Your task to perform on an android device: turn on the 12-hour format for clock Image 0: 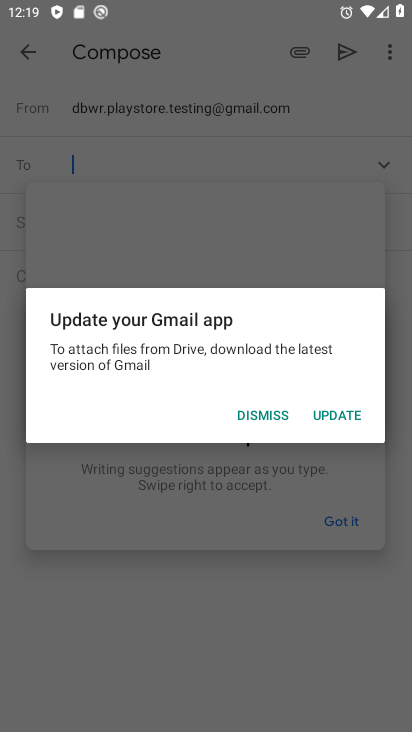
Step 0: press home button
Your task to perform on an android device: turn on the 12-hour format for clock Image 1: 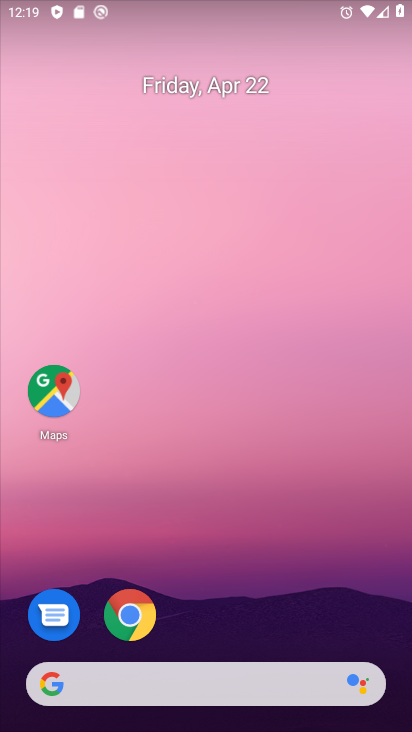
Step 1: drag from (249, 371) to (223, 127)
Your task to perform on an android device: turn on the 12-hour format for clock Image 2: 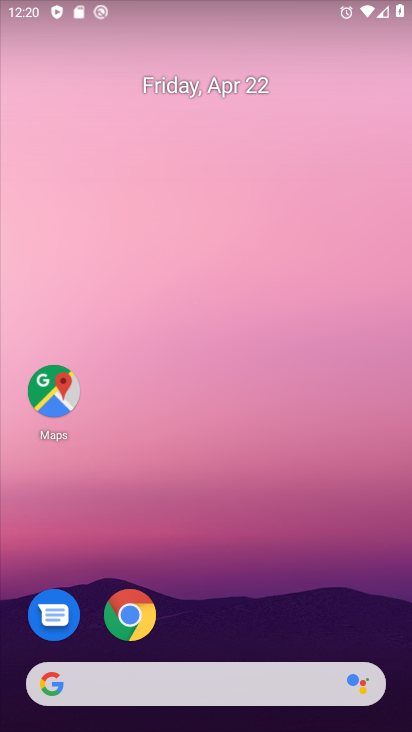
Step 2: drag from (247, 528) to (255, 107)
Your task to perform on an android device: turn on the 12-hour format for clock Image 3: 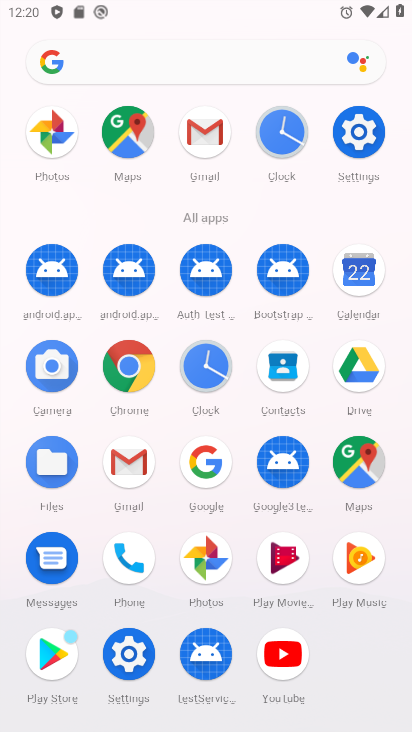
Step 3: click (268, 133)
Your task to perform on an android device: turn on the 12-hour format for clock Image 4: 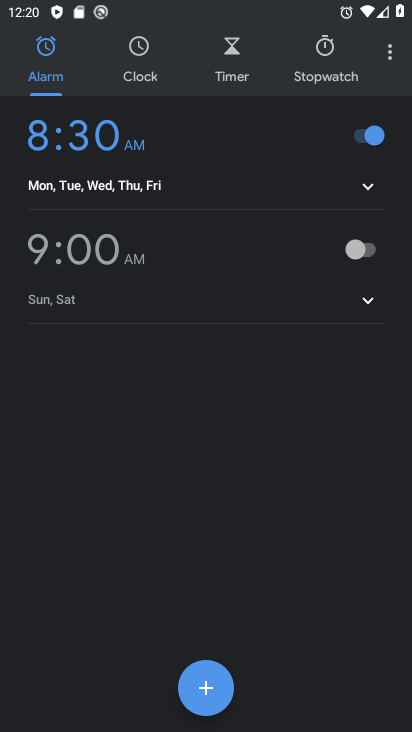
Step 4: click (387, 62)
Your task to perform on an android device: turn on the 12-hour format for clock Image 5: 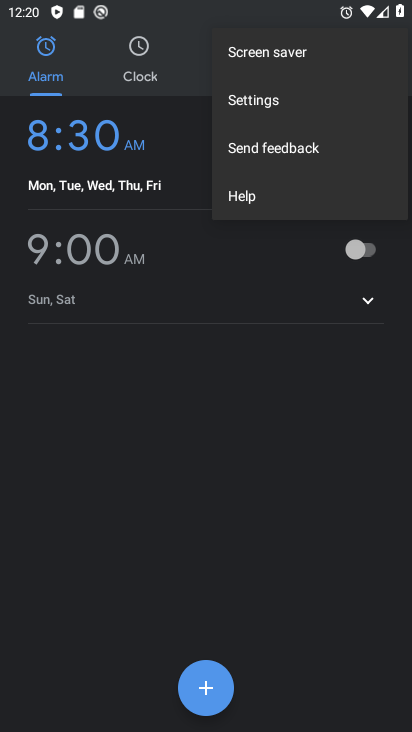
Step 5: click (293, 106)
Your task to perform on an android device: turn on the 12-hour format for clock Image 6: 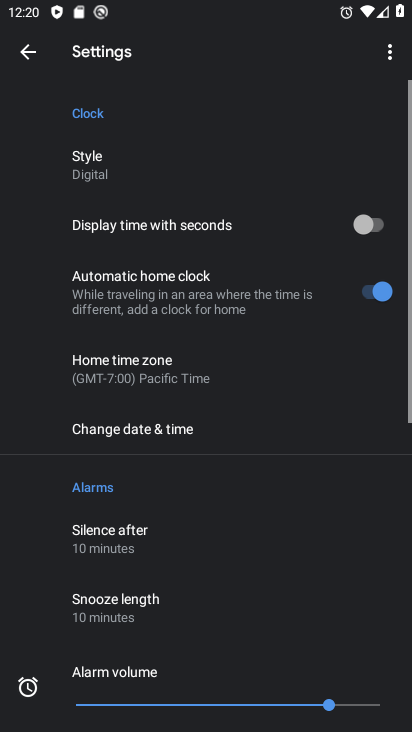
Step 6: click (131, 435)
Your task to perform on an android device: turn on the 12-hour format for clock Image 7: 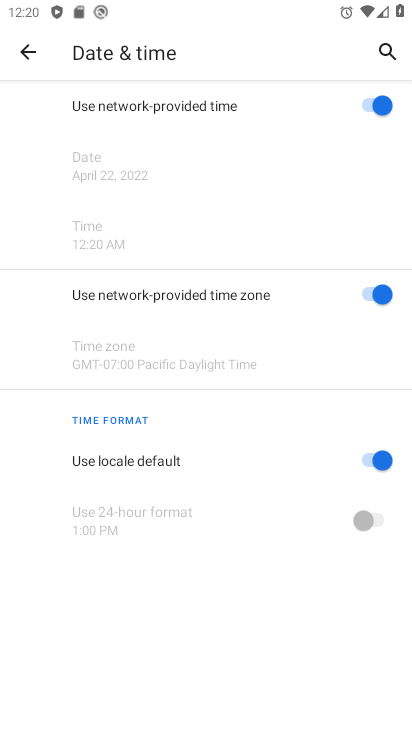
Step 7: click (386, 459)
Your task to perform on an android device: turn on the 12-hour format for clock Image 8: 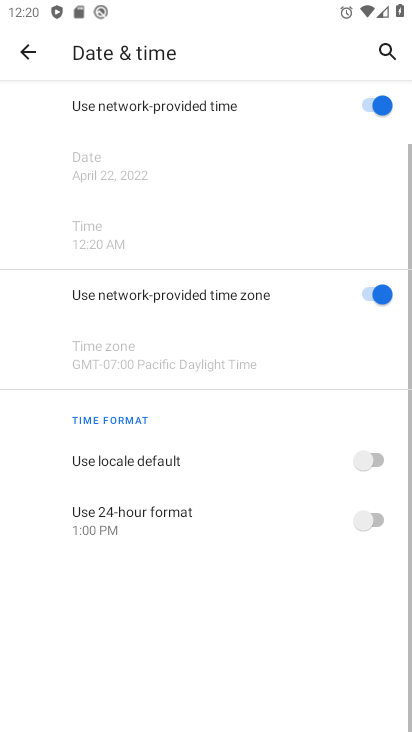
Step 8: click (371, 523)
Your task to perform on an android device: turn on the 12-hour format for clock Image 9: 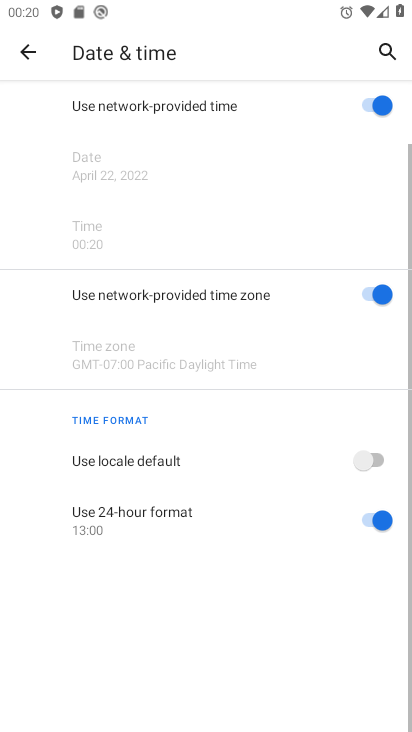
Step 9: click (371, 512)
Your task to perform on an android device: turn on the 12-hour format for clock Image 10: 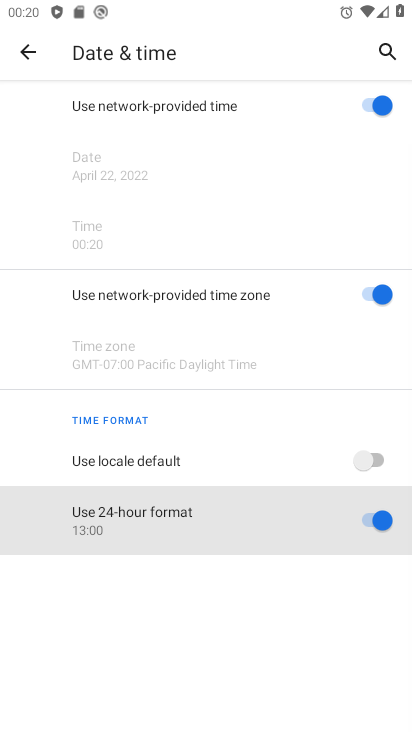
Step 10: click (353, 460)
Your task to perform on an android device: turn on the 12-hour format for clock Image 11: 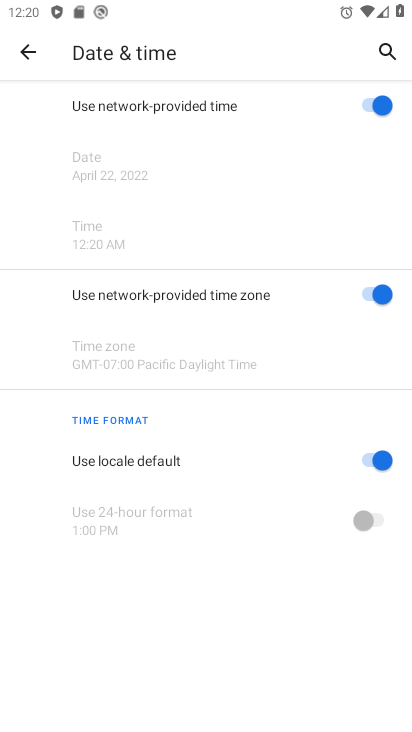
Step 11: task complete